Your task to perform on an android device: change notifications settings Image 0: 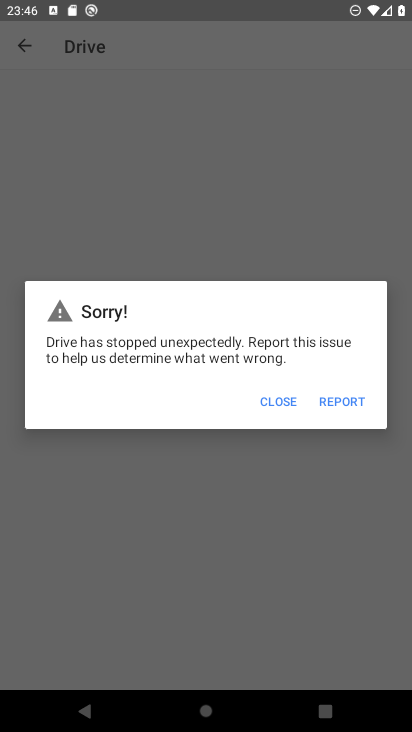
Step 0: press home button
Your task to perform on an android device: change notifications settings Image 1: 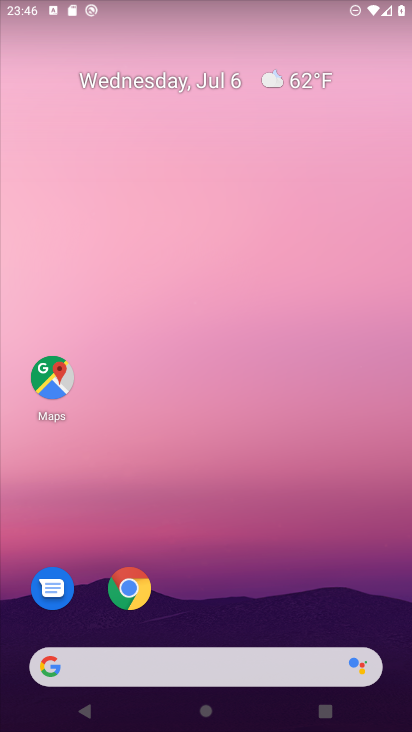
Step 1: drag from (389, 625) to (345, 116)
Your task to perform on an android device: change notifications settings Image 2: 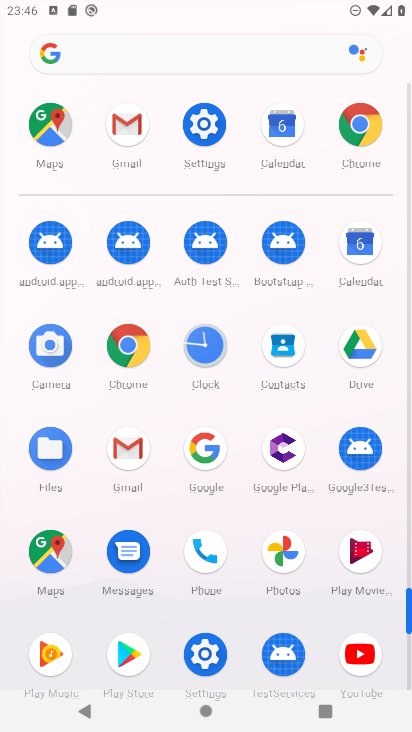
Step 2: click (205, 654)
Your task to perform on an android device: change notifications settings Image 3: 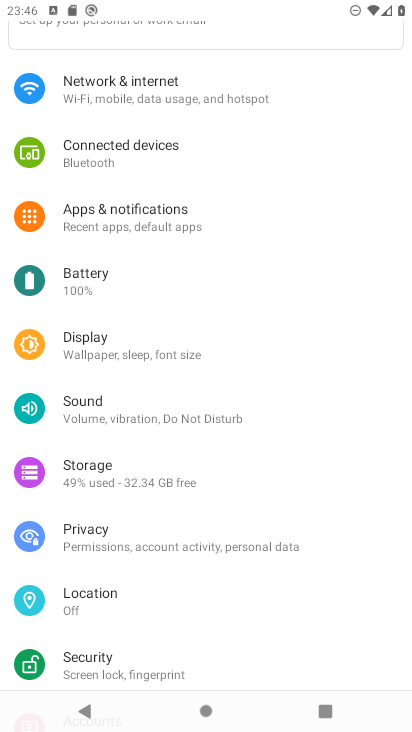
Step 3: click (96, 215)
Your task to perform on an android device: change notifications settings Image 4: 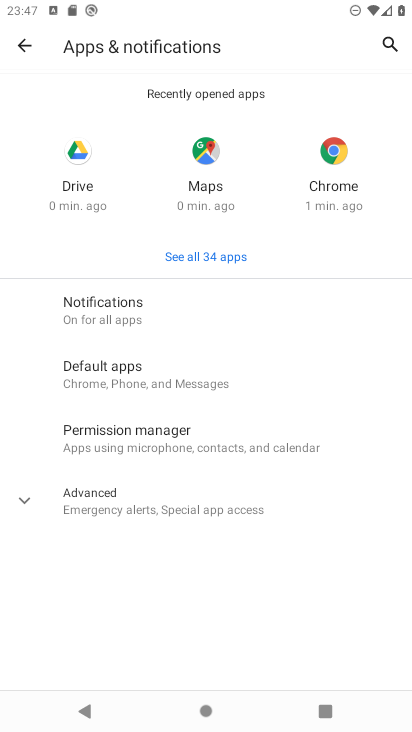
Step 4: click (99, 314)
Your task to perform on an android device: change notifications settings Image 5: 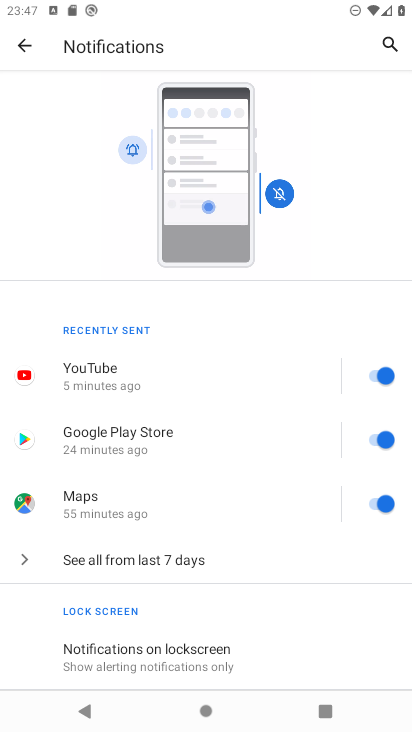
Step 5: drag from (309, 598) to (276, 230)
Your task to perform on an android device: change notifications settings Image 6: 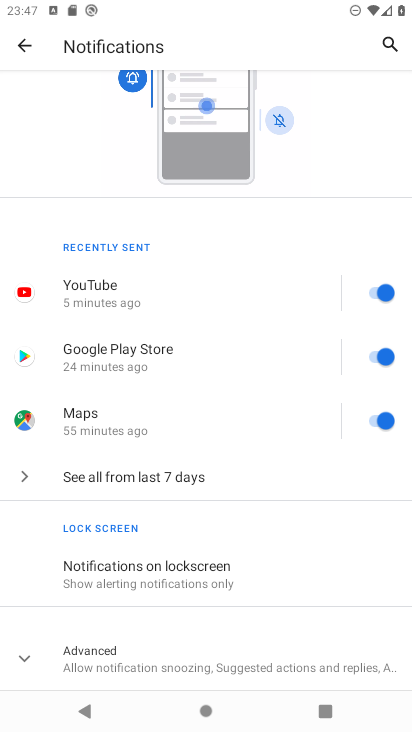
Step 6: click (22, 654)
Your task to perform on an android device: change notifications settings Image 7: 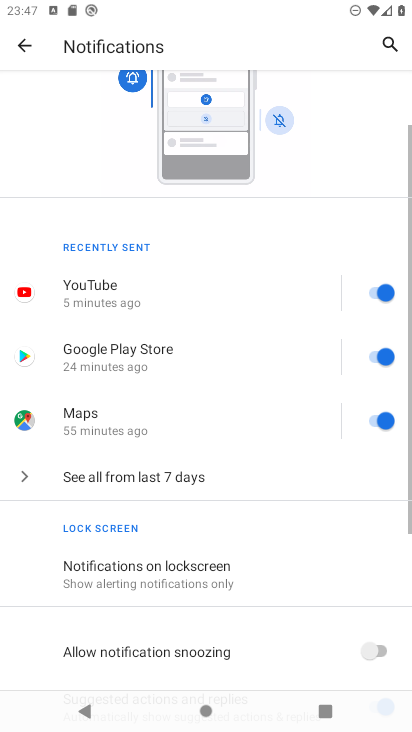
Step 7: drag from (260, 638) to (261, 423)
Your task to perform on an android device: change notifications settings Image 8: 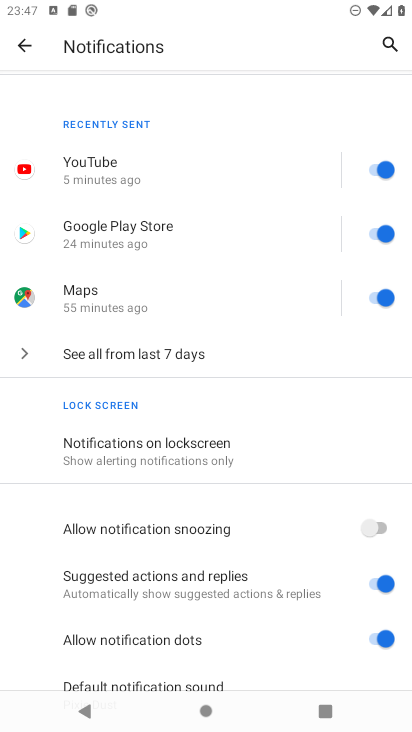
Step 8: drag from (267, 579) to (280, 328)
Your task to perform on an android device: change notifications settings Image 9: 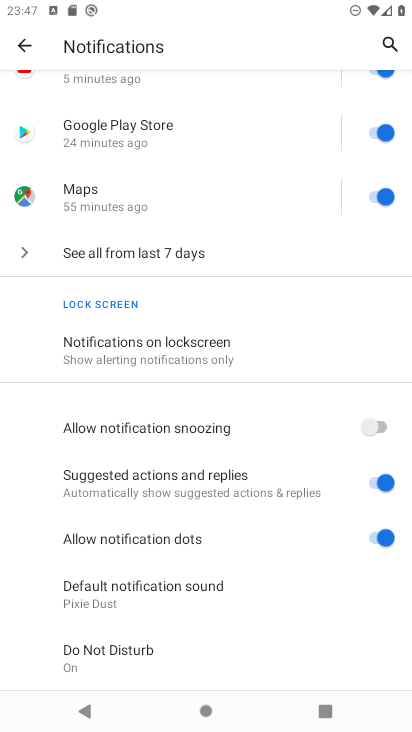
Step 9: click (371, 540)
Your task to perform on an android device: change notifications settings Image 10: 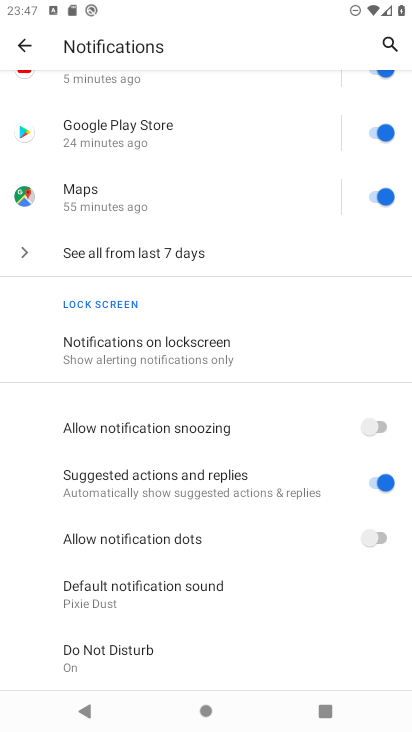
Step 10: click (381, 430)
Your task to perform on an android device: change notifications settings Image 11: 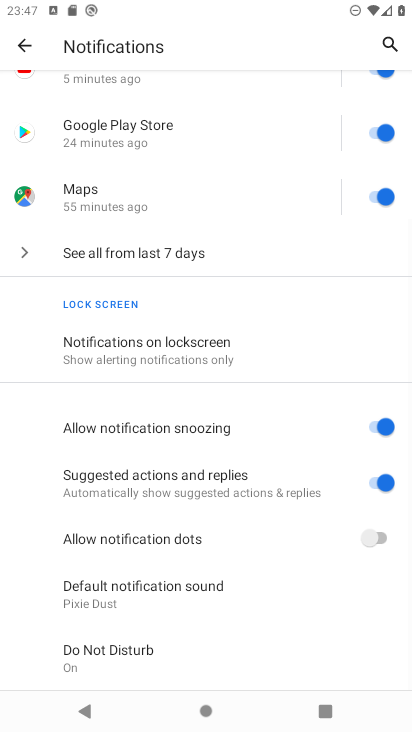
Step 11: click (369, 485)
Your task to perform on an android device: change notifications settings Image 12: 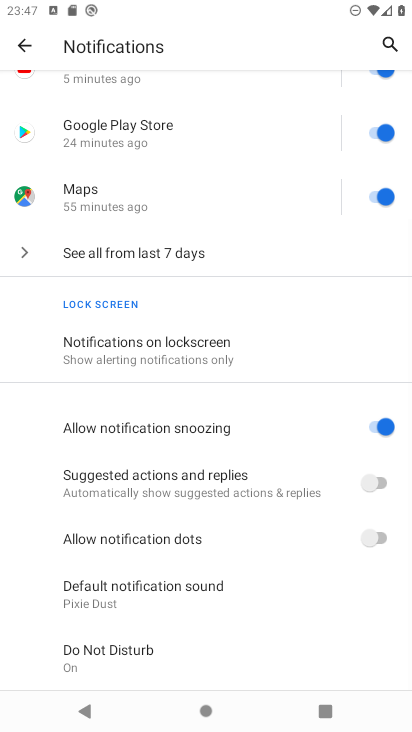
Step 12: task complete